Your task to perform on an android device: change the clock display to digital Image 0: 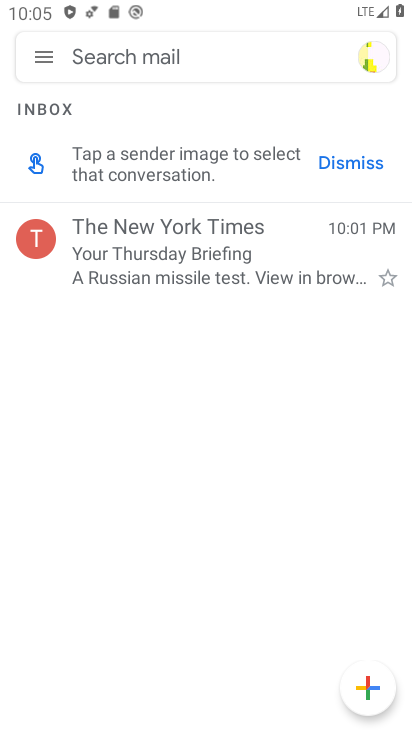
Step 0: press home button
Your task to perform on an android device: change the clock display to digital Image 1: 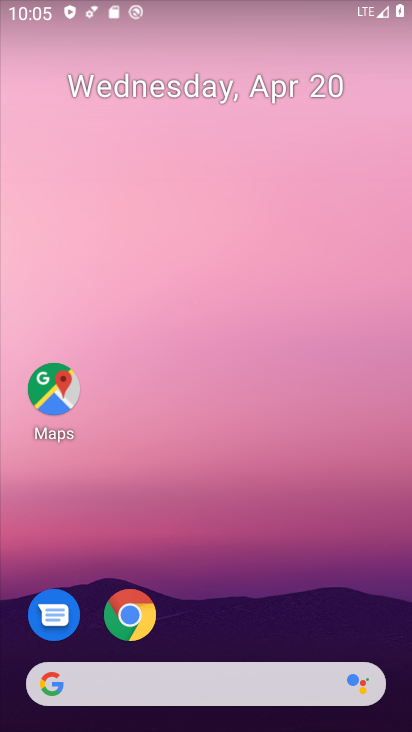
Step 1: drag from (299, 573) to (358, 194)
Your task to perform on an android device: change the clock display to digital Image 2: 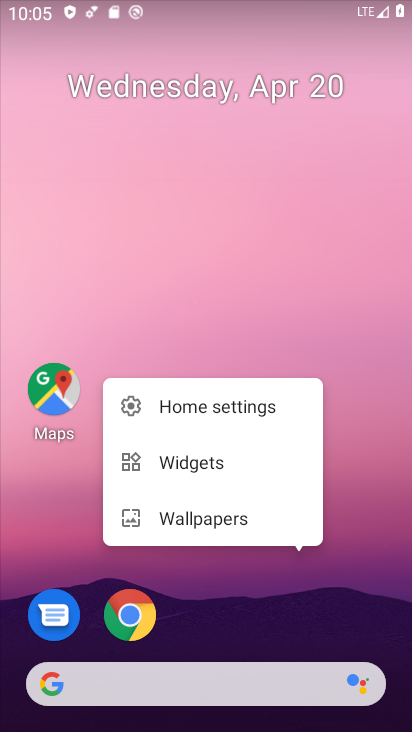
Step 2: click (326, 267)
Your task to perform on an android device: change the clock display to digital Image 3: 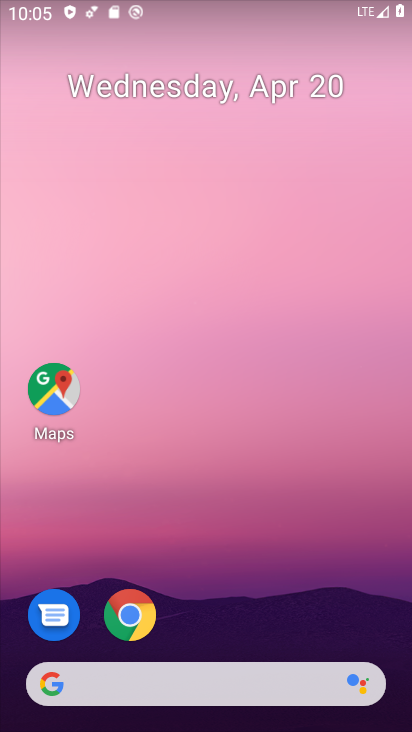
Step 3: drag from (207, 615) to (323, 18)
Your task to perform on an android device: change the clock display to digital Image 4: 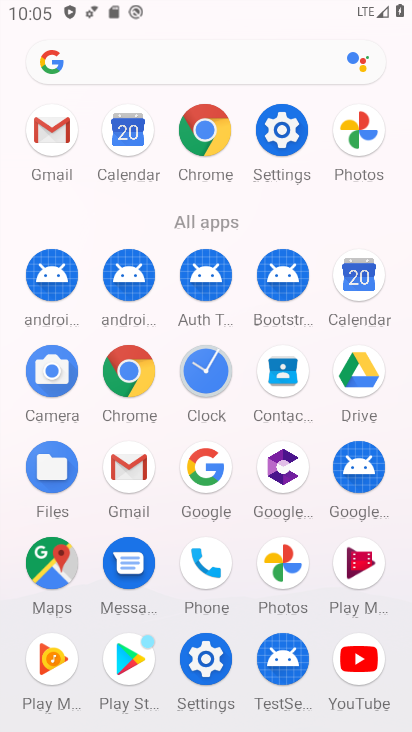
Step 4: click (280, 143)
Your task to perform on an android device: change the clock display to digital Image 5: 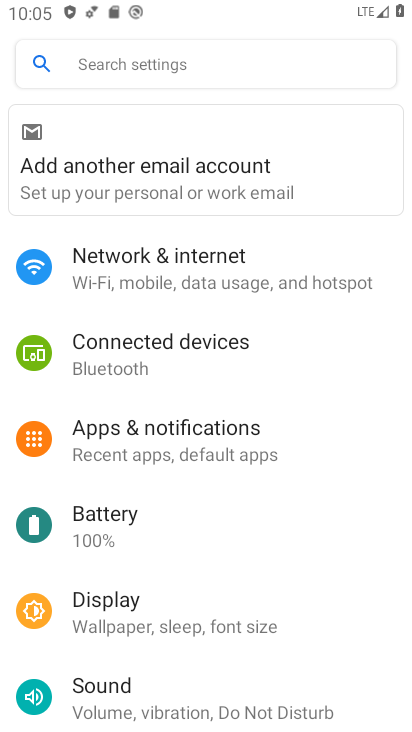
Step 5: click (202, 603)
Your task to perform on an android device: change the clock display to digital Image 6: 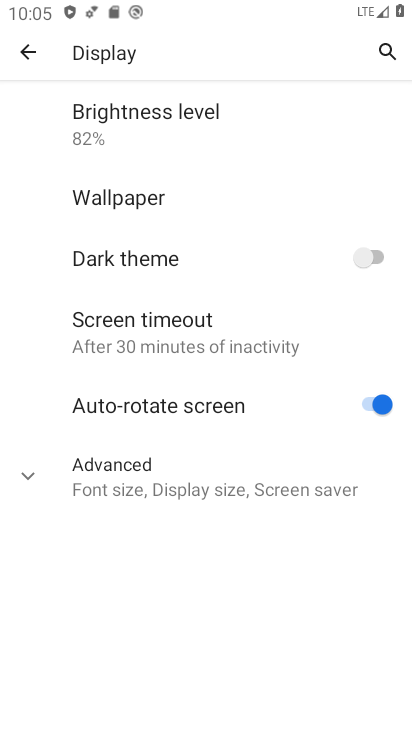
Step 6: press home button
Your task to perform on an android device: change the clock display to digital Image 7: 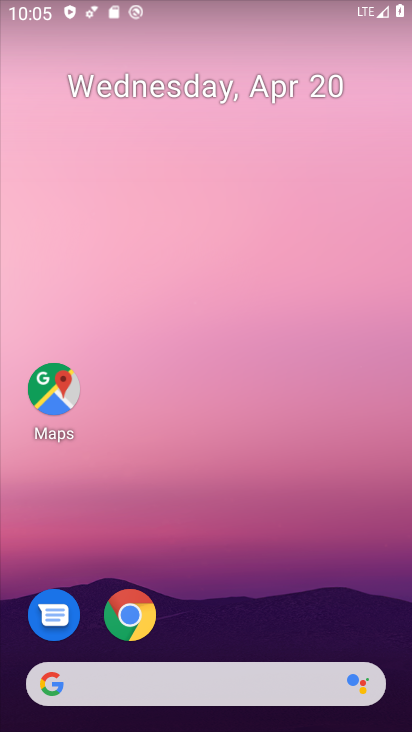
Step 7: drag from (266, 620) to (283, 52)
Your task to perform on an android device: change the clock display to digital Image 8: 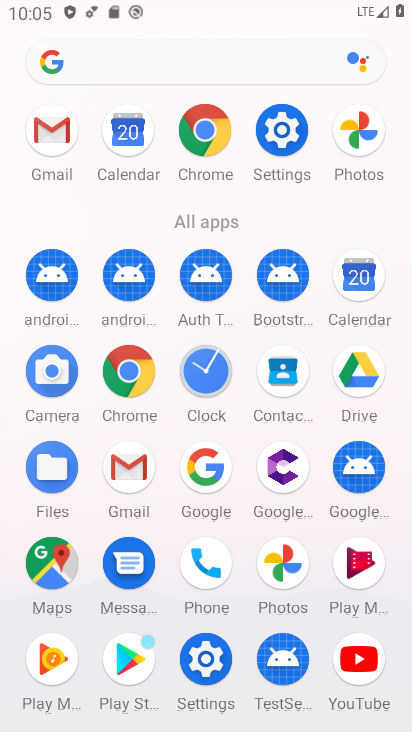
Step 8: click (217, 382)
Your task to perform on an android device: change the clock display to digital Image 9: 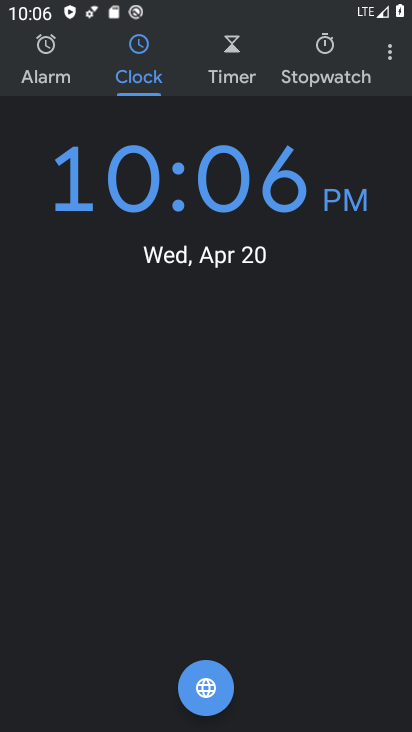
Step 9: click (395, 65)
Your task to perform on an android device: change the clock display to digital Image 10: 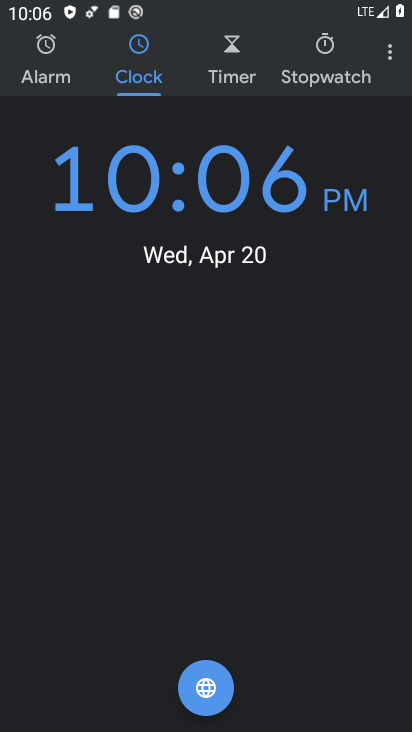
Step 10: click (381, 54)
Your task to perform on an android device: change the clock display to digital Image 11: 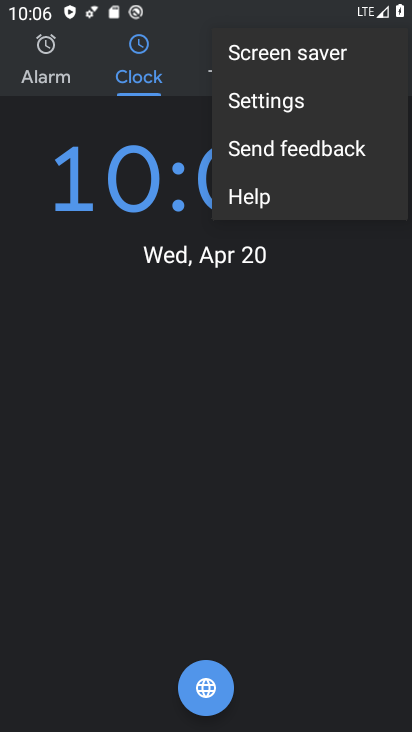
Step 11: click (344, 89)
Your task to perform on an android device: change the clock display to digital Image 12: 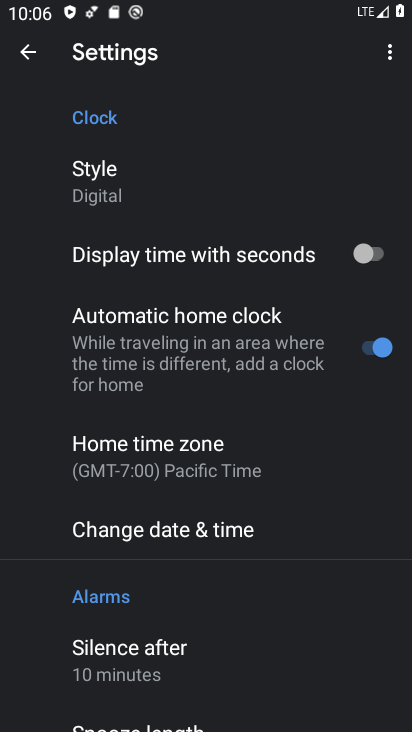
Step 12: task complete